Your task to perform on an android device: star an email in the gmail app Image 0: 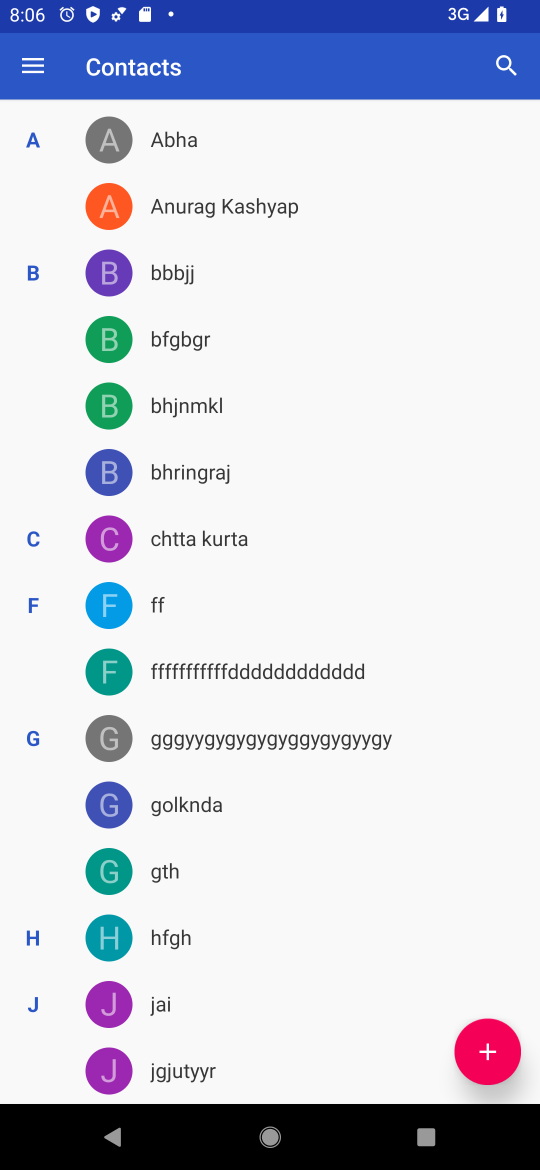
Step 0: press back button
Your task to perform on an android device: star an email in the gmail app Image 1: 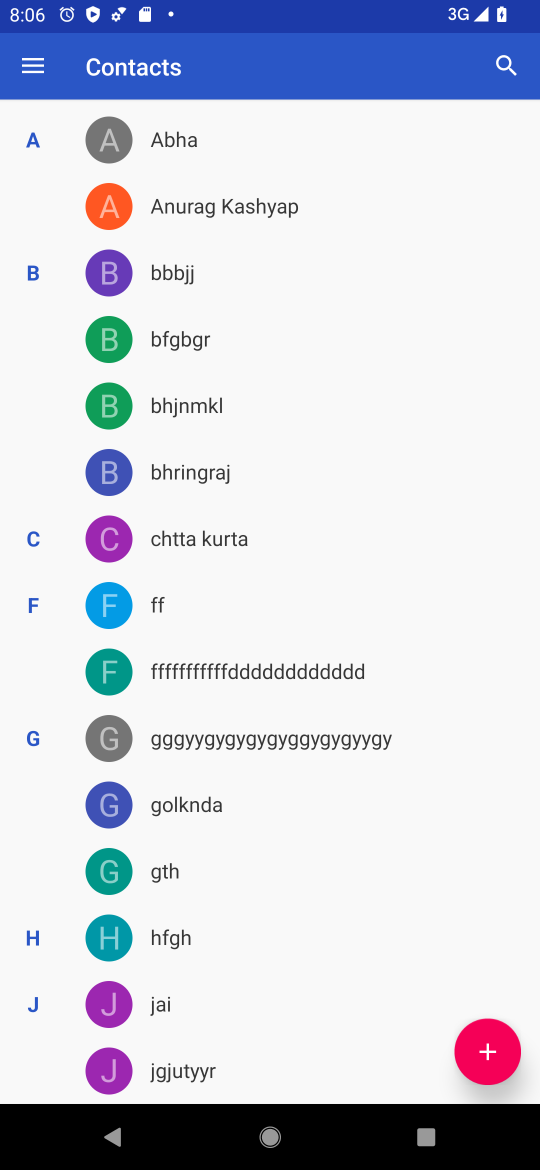
Step 1: press back button
Your task to perform on an android device: star an email in the gmail app Image 2: 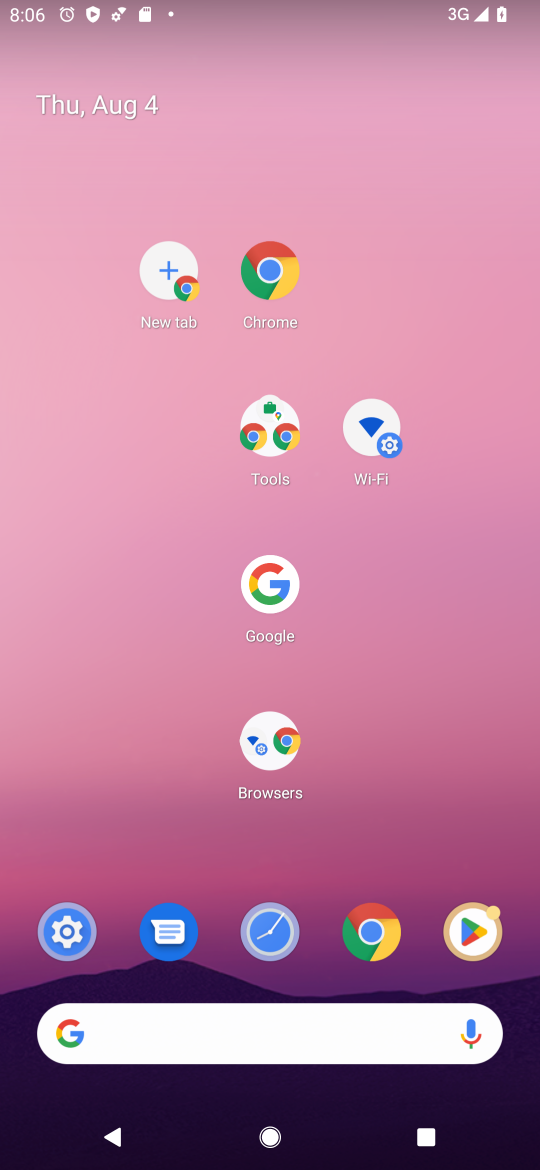
Step 2: press back button
Your task to perform on an android device: star an email in the gmail app Image 3: 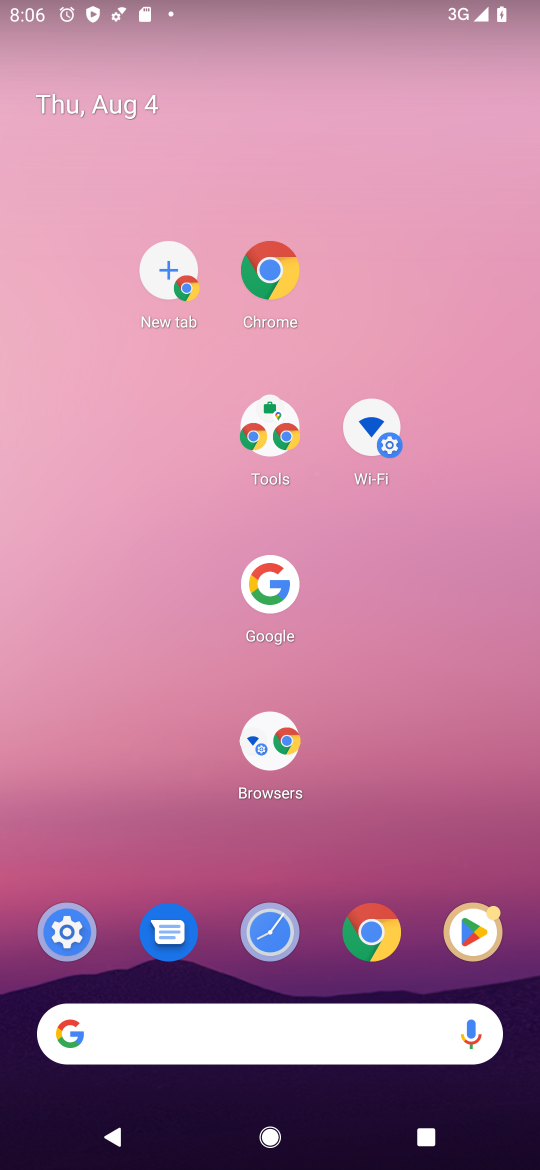
Step 3: drag from (270, 320) to (187, 365)
Your task to perform on an android device: star an email in the gmail app Image 4: 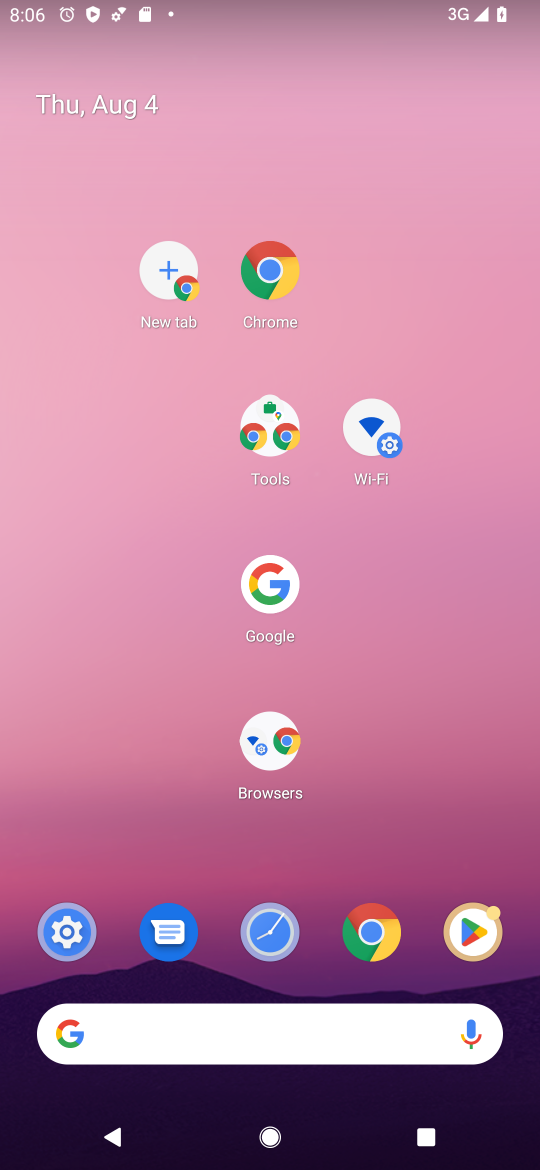
Step 4: drag from (302, 978) to (263, 376)
Your task to perform on an android device: star an email in the gmail app Image 5: 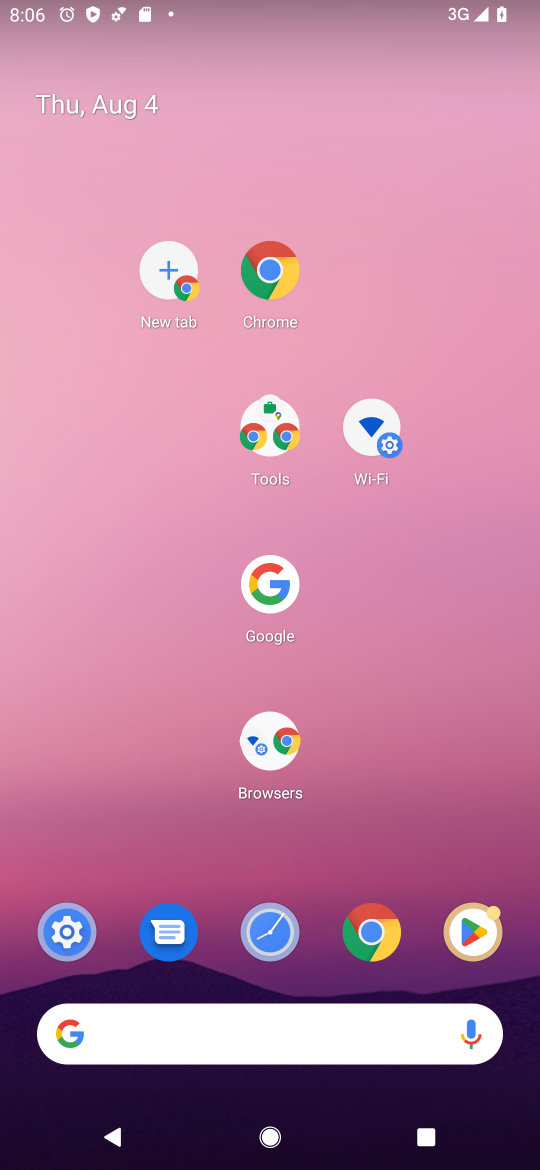
Step 5: drag from (377, 669) to (284, 367)
Your task to perform on an android device: star an email in the gmail app Image 6: 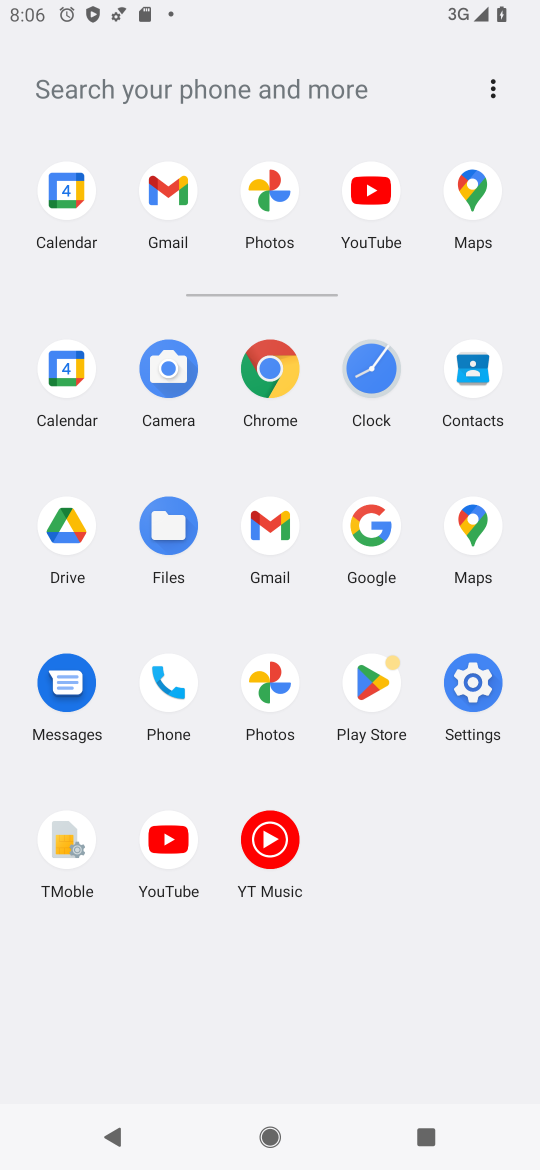
Step 6: click (365, 529)
Your task to perform on an android device: star an email in the gmail app Image 7: 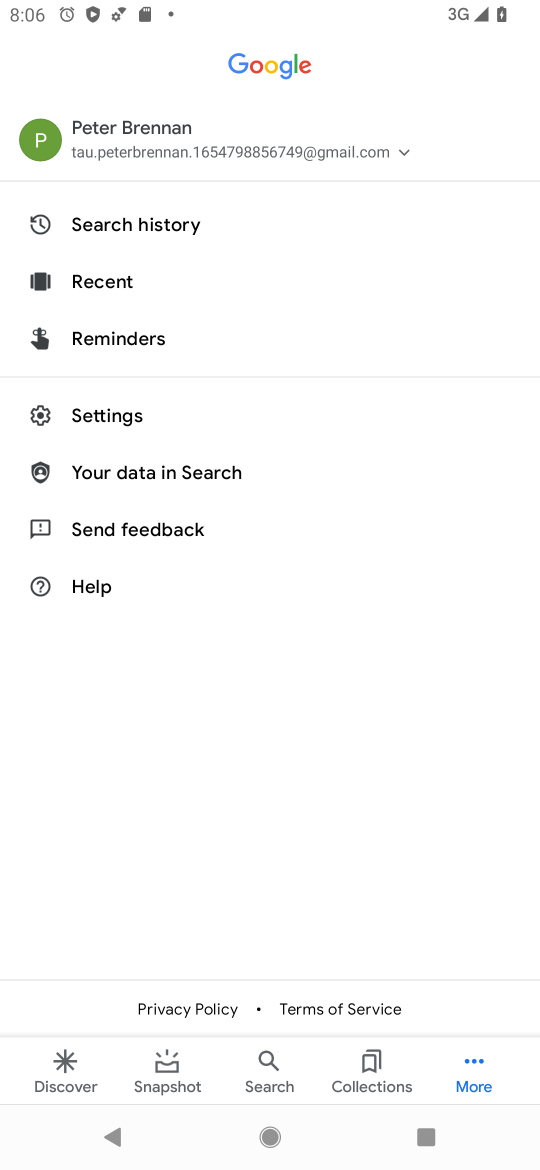
Step 7: press back button
Your task to perform on an android device: star an email in the gmail app Image 8: 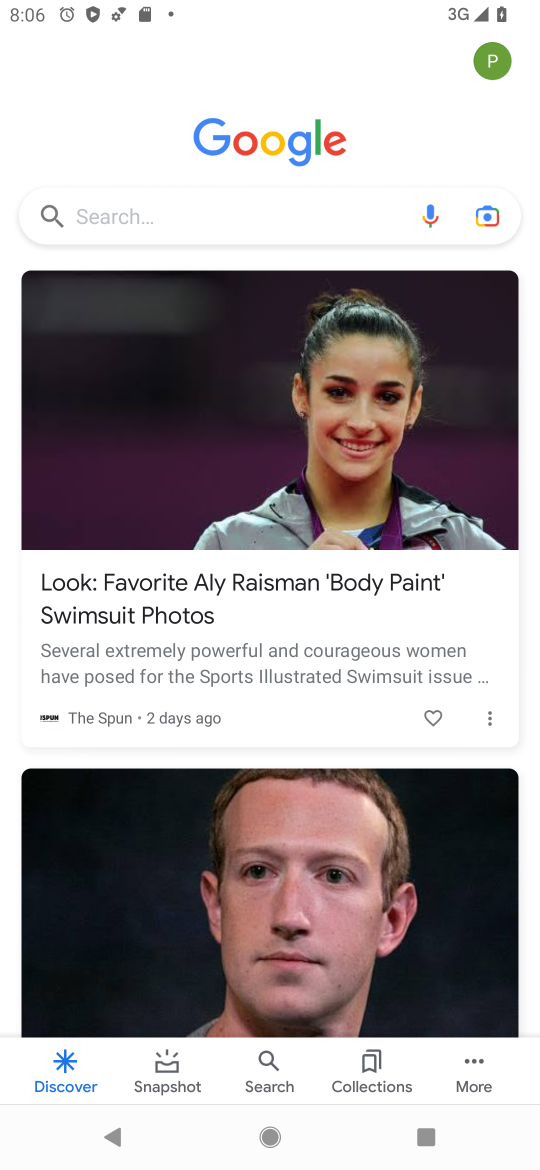
Step 8: press back button
Your task to perform on an android device: star an email in the gmail app Image 9: 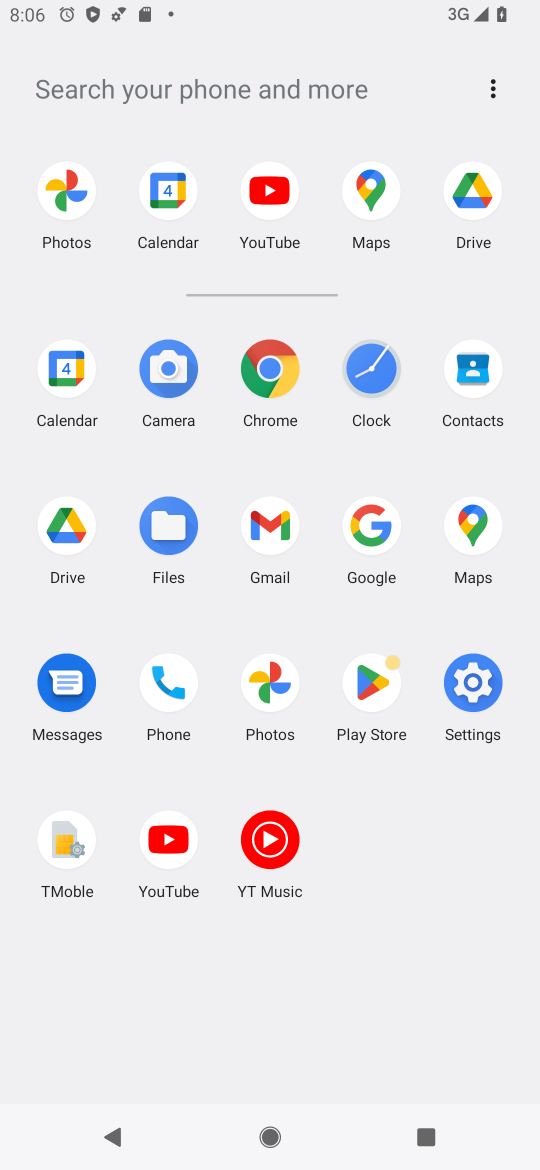
Step 9: click (266, 508)
Your task to perform on an android device: star an email in the gmail app Image 10: 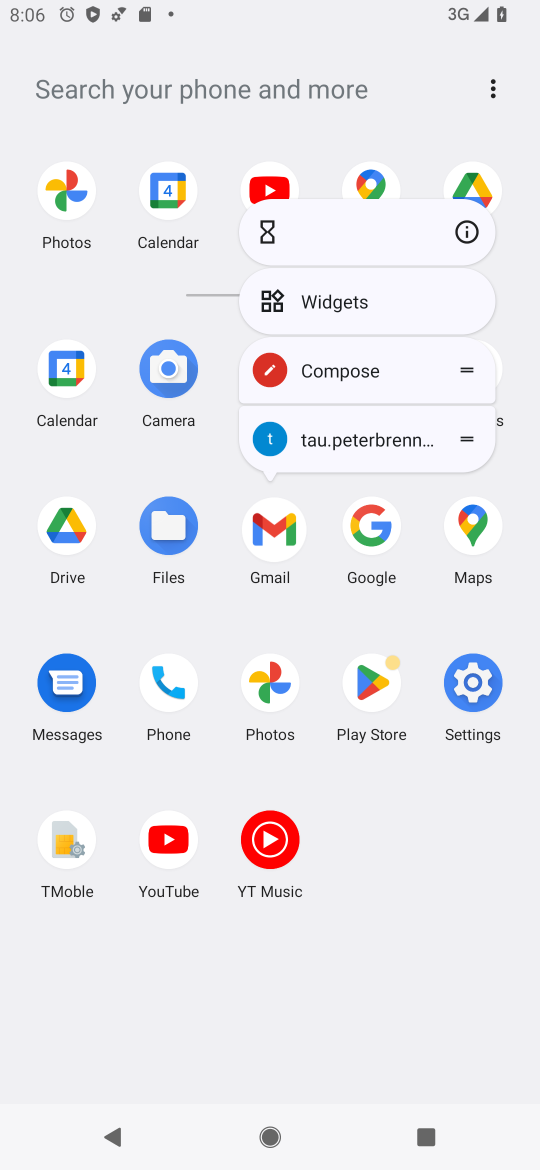
Step 10: click (270, 512)
Your task to perform on an android device: star an email in the gmail app Image 11: 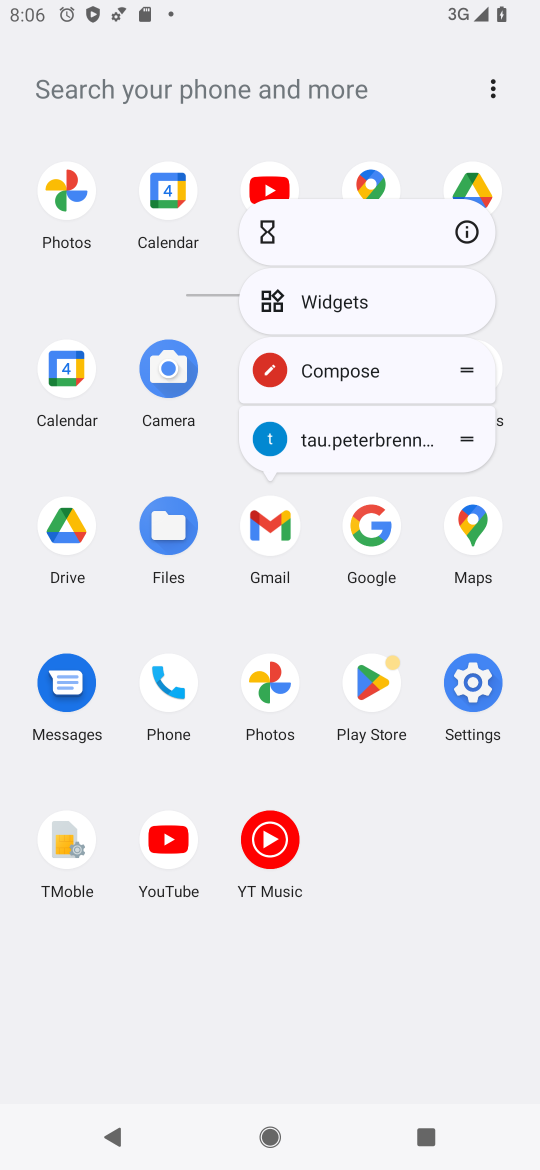
Step 11: click (279, 519)
Your task to perform on an android device: star an email in the gmail app Image 12: 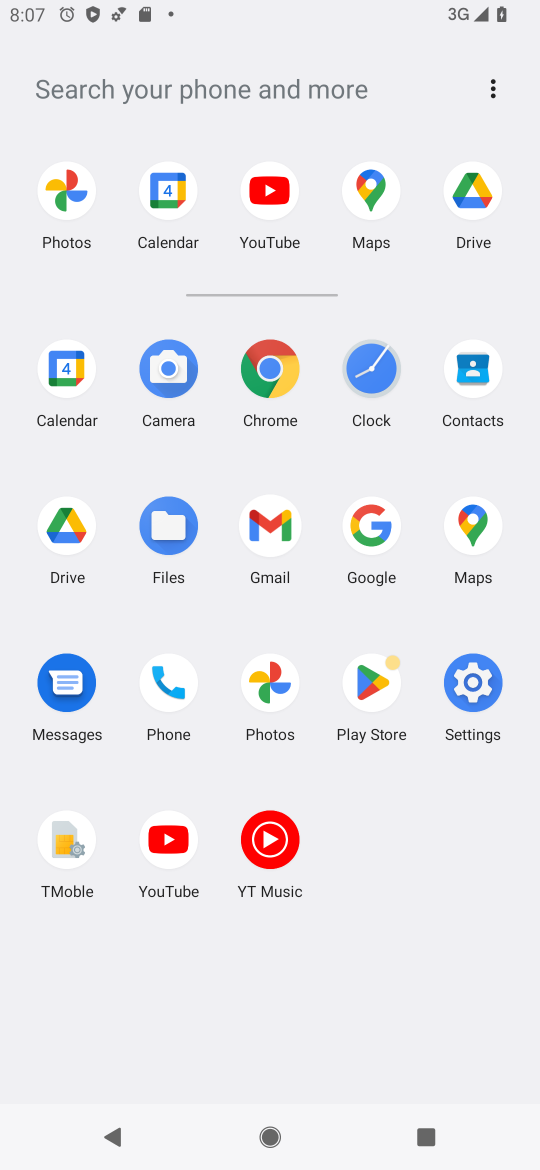
Step 12: click (324, 374)
Your task to perform on an android device: star an email in the gmail app Image 13: 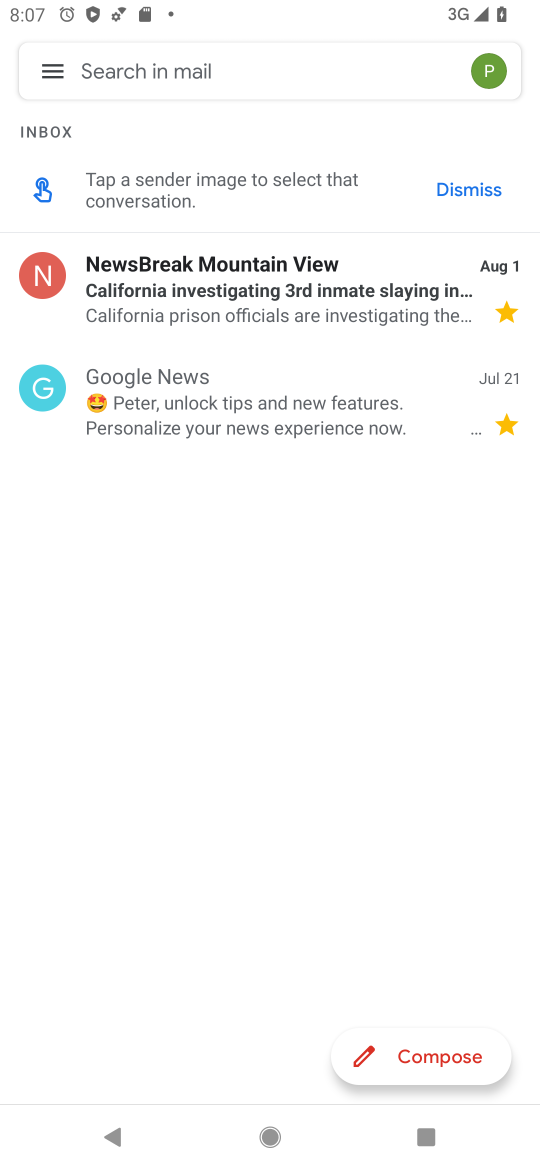
Step 13: click (43, 66)
Your task to perform on an android device: star an email in the gmail app Image 14: 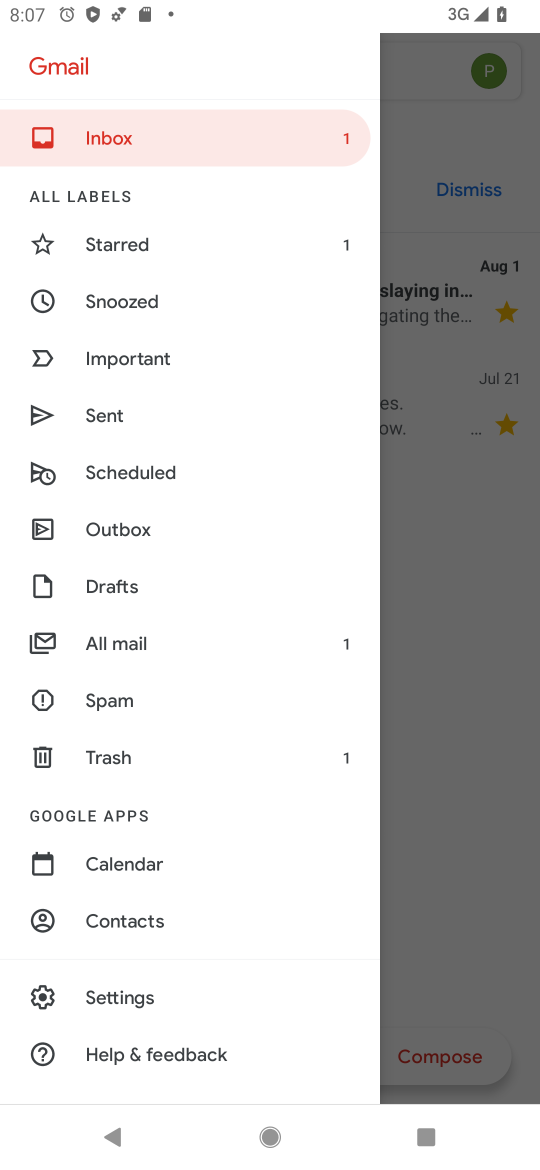
Step 14: task complete